Your task to perform on an android device: open a new tab in the chrome app Image 0: 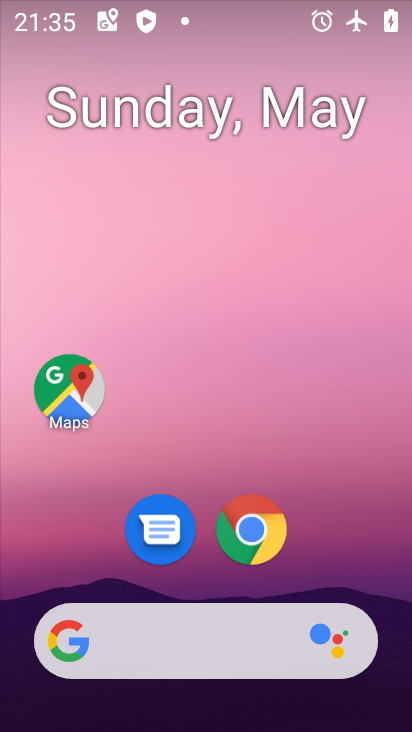
Step 0: click (251, 537)
Your task to perform on an android device: open a new tab in the chrome app Image 1: 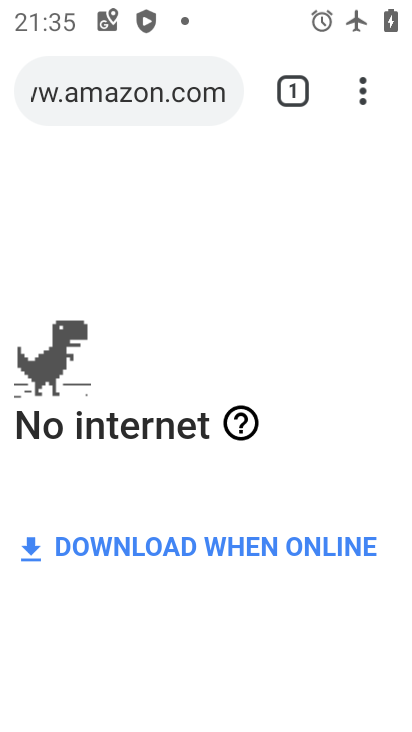
Step 1: click (365, 95)
Your task to perform on an android device: open a new tab in the chrome app Image 2: 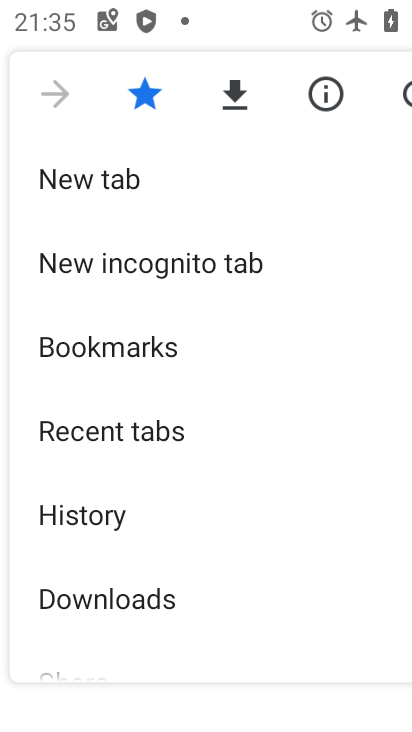
Step 2: click (82, 176)
Your task to perform on an android device: open a new tab in the chrome app Image 3: 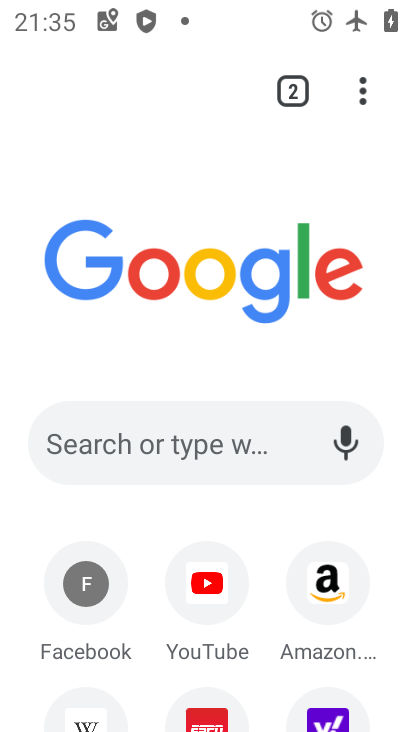
Step 3: task complete